Your task to perform on an android device: open device folders in google photos Image 0: 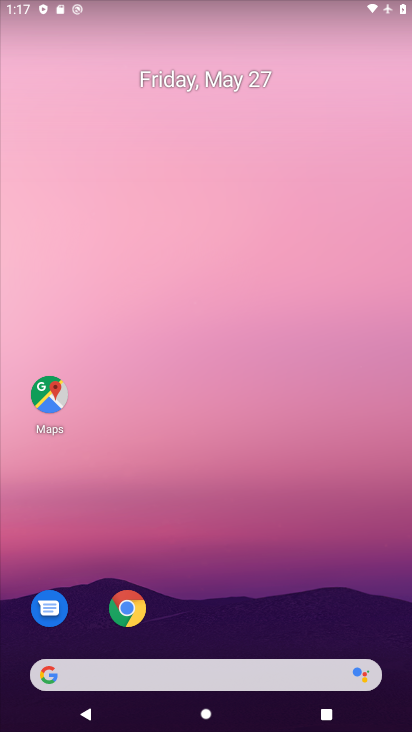
Step 0: drag from (192, 646) to (292, 130)
Your task to perform on an android device: open device folders in google photos Image 1: 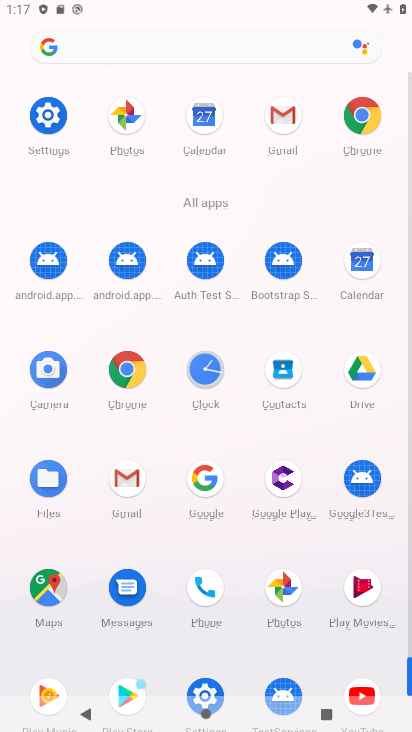
Step 1: click (285, 588)
Your task to perform on an android device: open device folders in google photos Image 2: 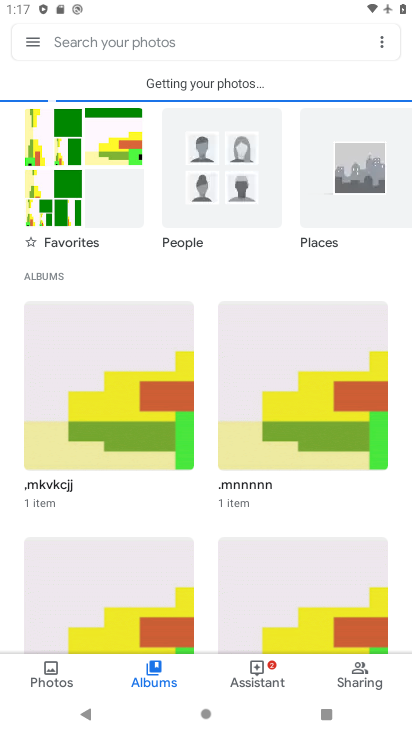
Step 2: click (31, 39)
Your task to perform on an android device: open device folders in google photos Image 3: 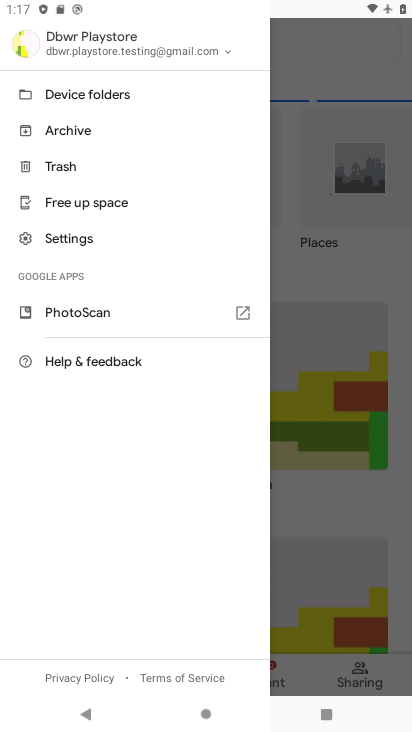
Step 3: click (114, 92)
Your task to perform on an android device: open device folders in google photos Image 4: 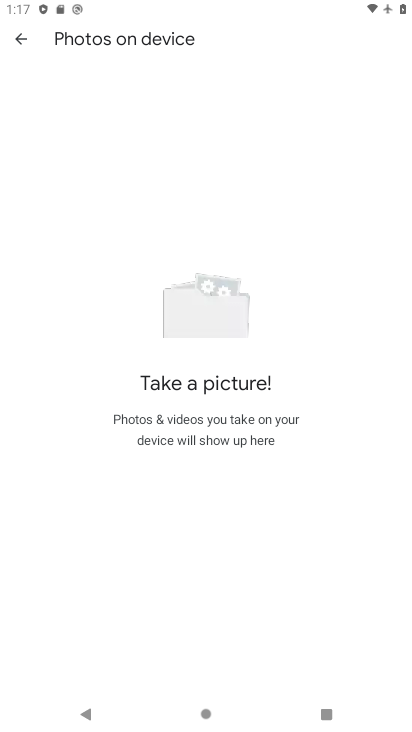
Step 4: task complete